Your task to perform on an android device: turn off data saver in the chrome app Image 0: 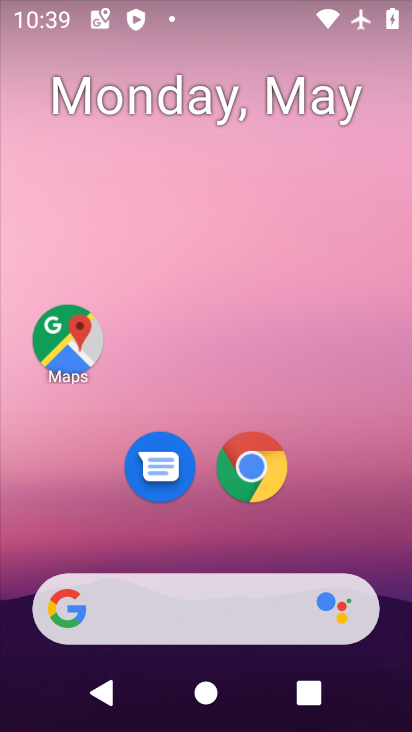
Step 0: click (264, 466)
Your task to perform on an android device: turn off data saver in the chrome app Image 1: 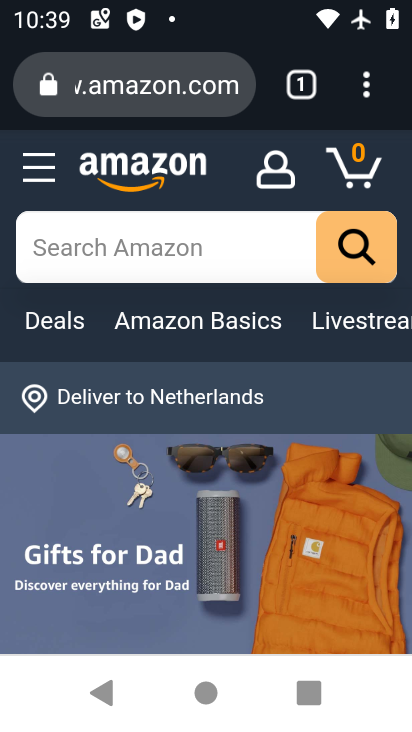
Step 1: click (359, 91)
Your task to perform on an android device: turn off data saver in the chrome app Image 2: 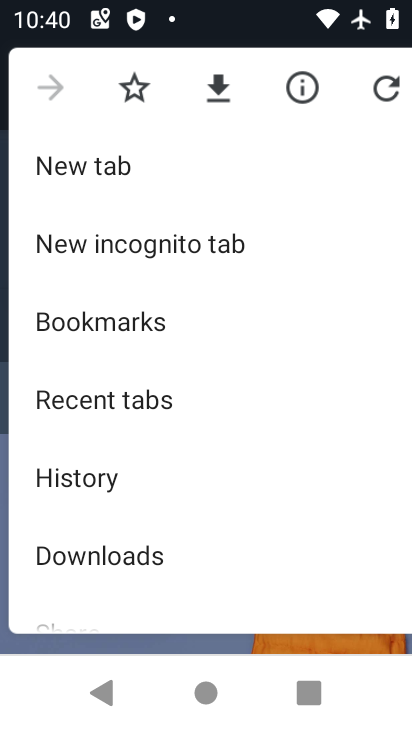
Step 2: drag from (173, 557) to (233, 215)
Your task to perform on an android device: turn off data saver in the chrome app Image 3: 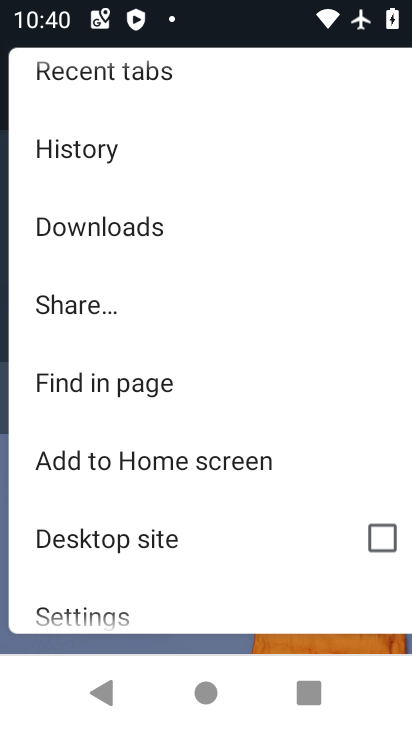
Step 3: drag from (159, 591) to (242, 267)
Your task to perform on an android device: turn off data saver in the chrome app Image 4: 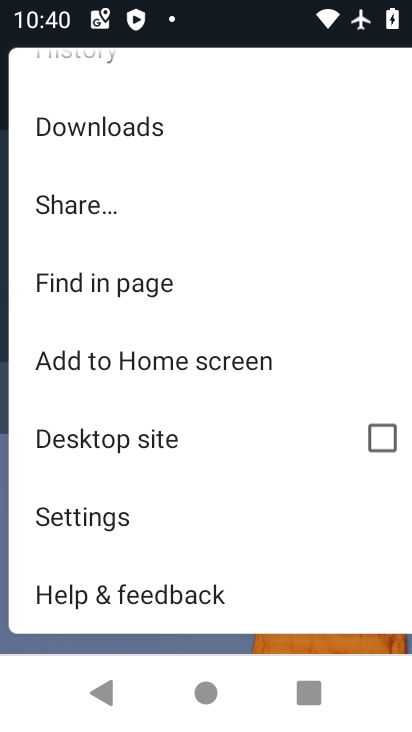
Step 4: click (147, 521)
Your task to perform on an android device: turn off data saver in the chrome app Image 5: 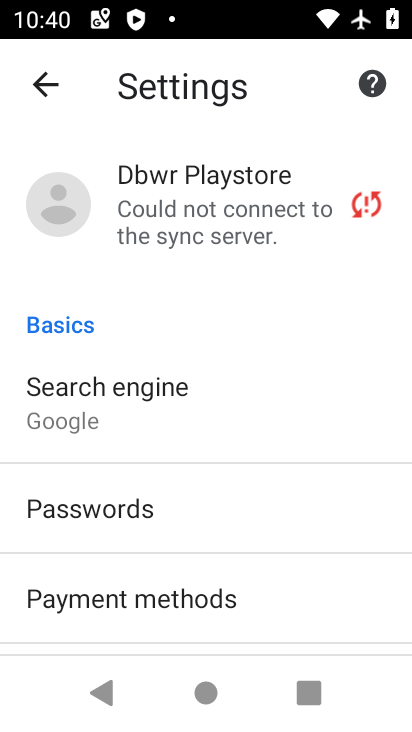
Step 5: drag from (250, 583) to (274, 216)
Your task to perform on an android device: turn off data saver in the chrome app Image 6: 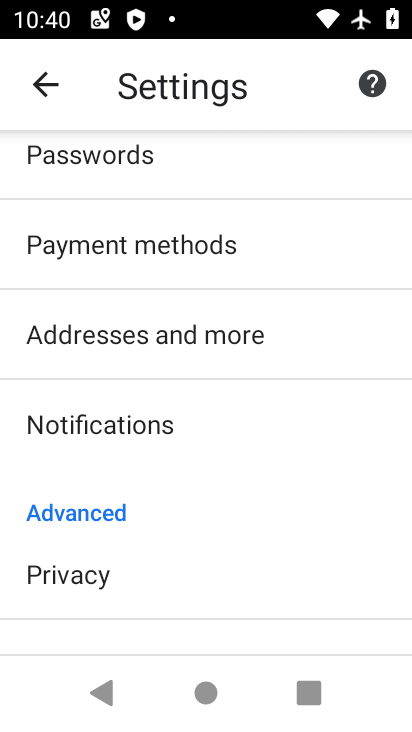
Step 6: drag from (243, 548) to (265, 267)
Your task to perform on an android device: turn off data saver in the chrome app Image 7: 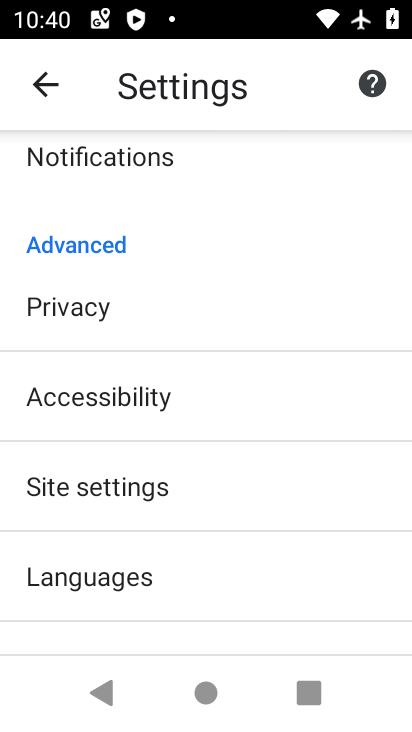
Step 7: drag from (181, 560) to (196, 248)
Your task to perform on an android device: turn off data saver in the chrome app Image 8: 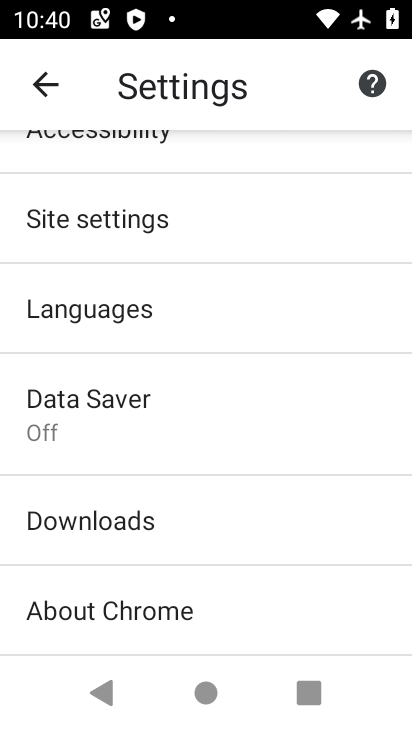
Step 8: click (99, 439)
Your task to perform on an android device: turn off data saver in the chrome app Image 9: 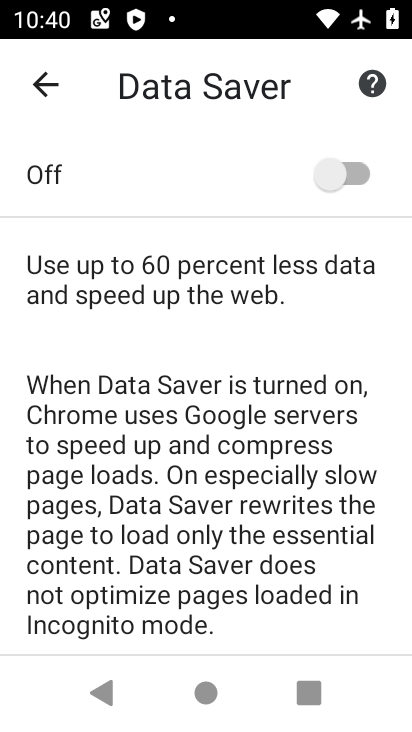
Step 9: task complete